Your task to perform on an android device: Clear all items from cart on bestbuy. Image 0: 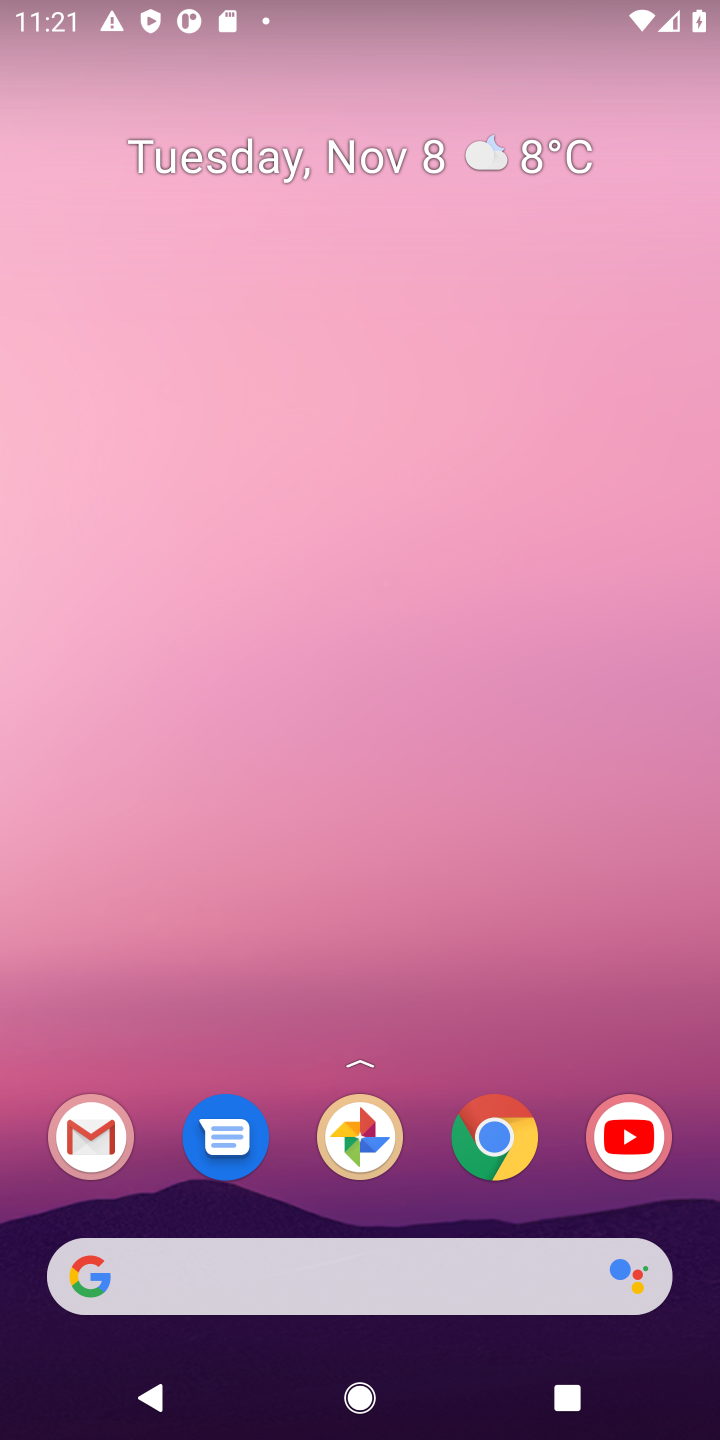
Step 0: click (521, 1133)
Your task to perform on an android device: Clear all items from cart on bestbuy. Image 1: 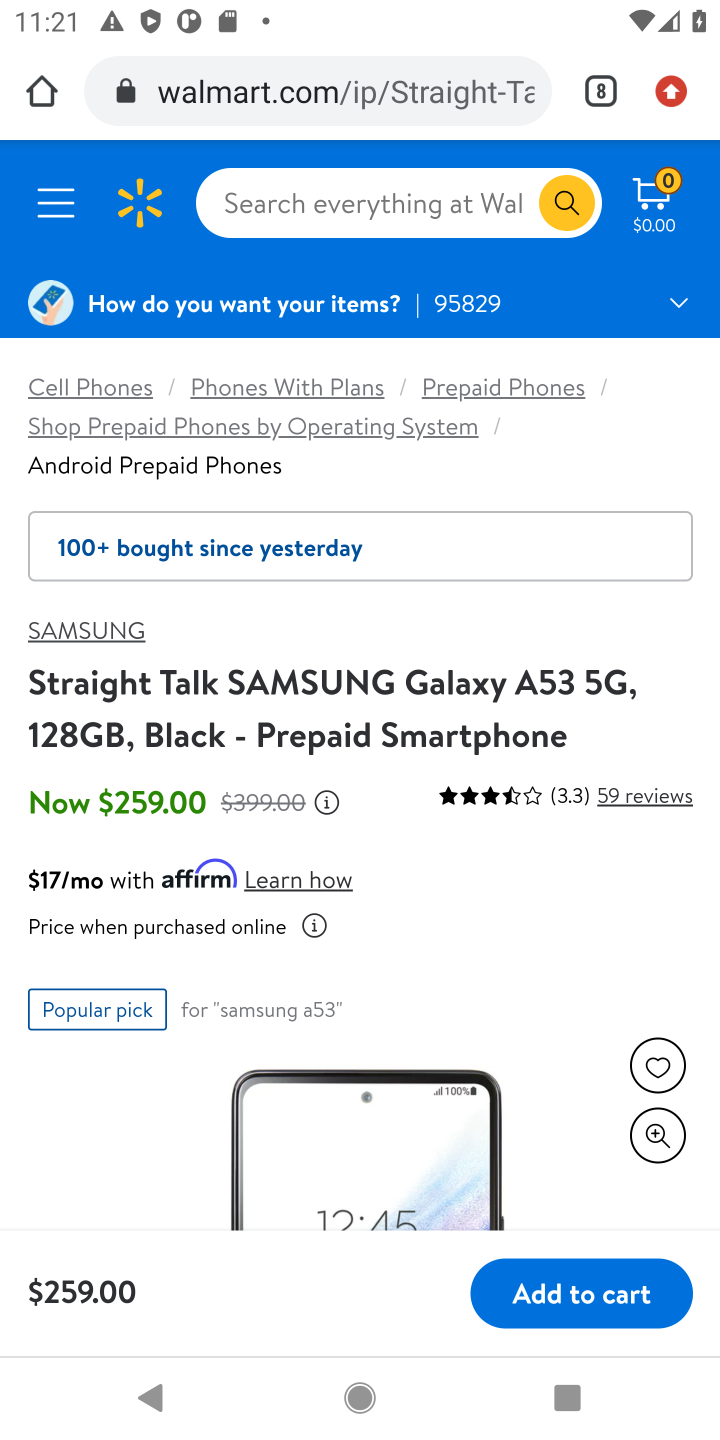
Step 1: click (616, 88)
Your task to perform on an android device: Clear all items from cart on bestbuy. Image 2: 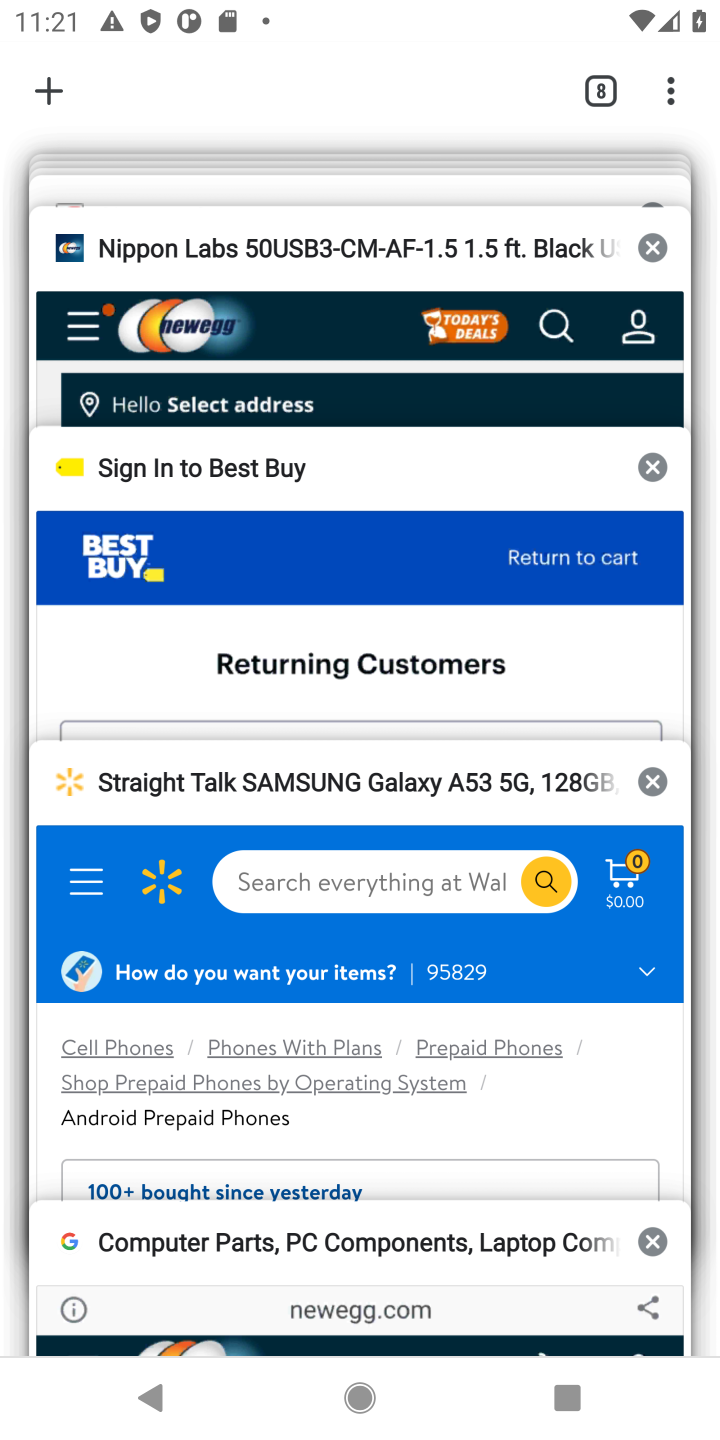
Step 2: click (391, 606)
Your task to perform on an android device: Clear all items from cart on bestbuy. Image 3: 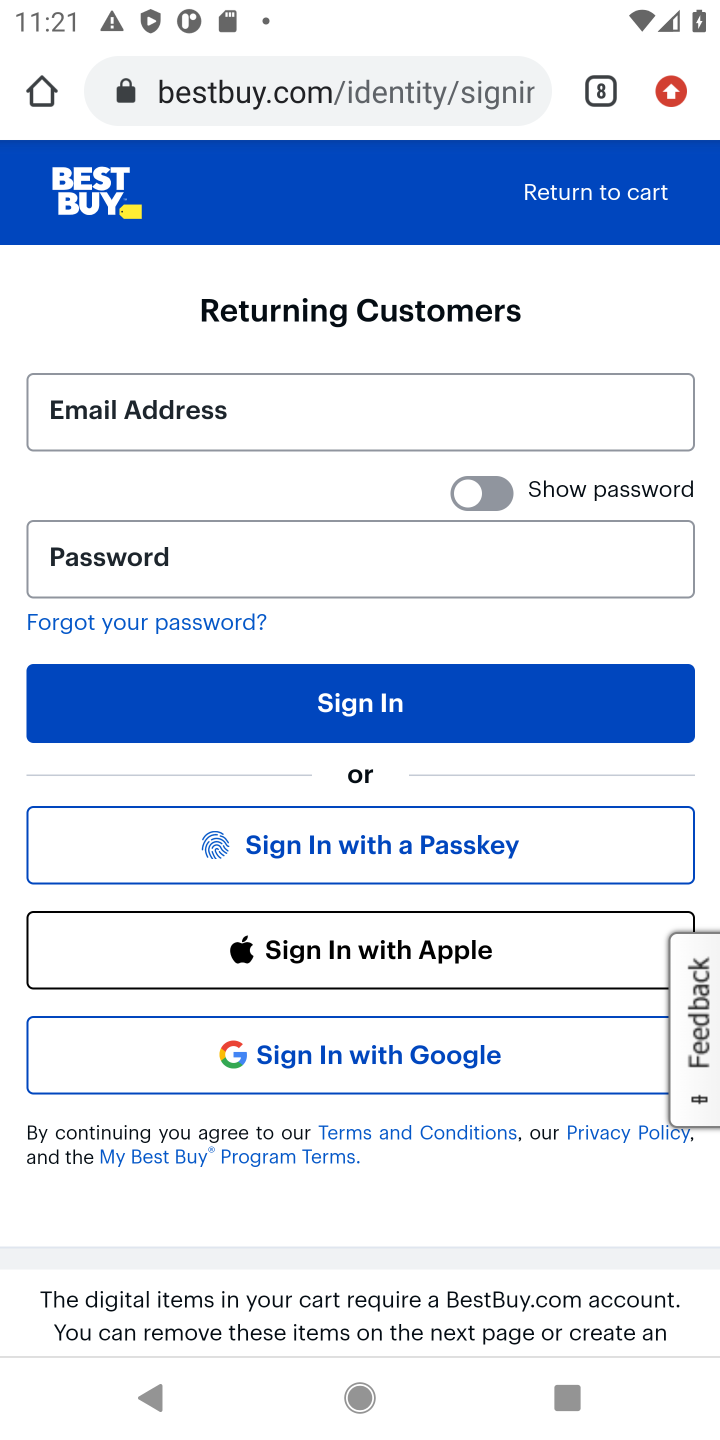
Step 3: click (586, 193)
Your task to perform on an android device: Clear all items from cart on bestbuy. Image 4: 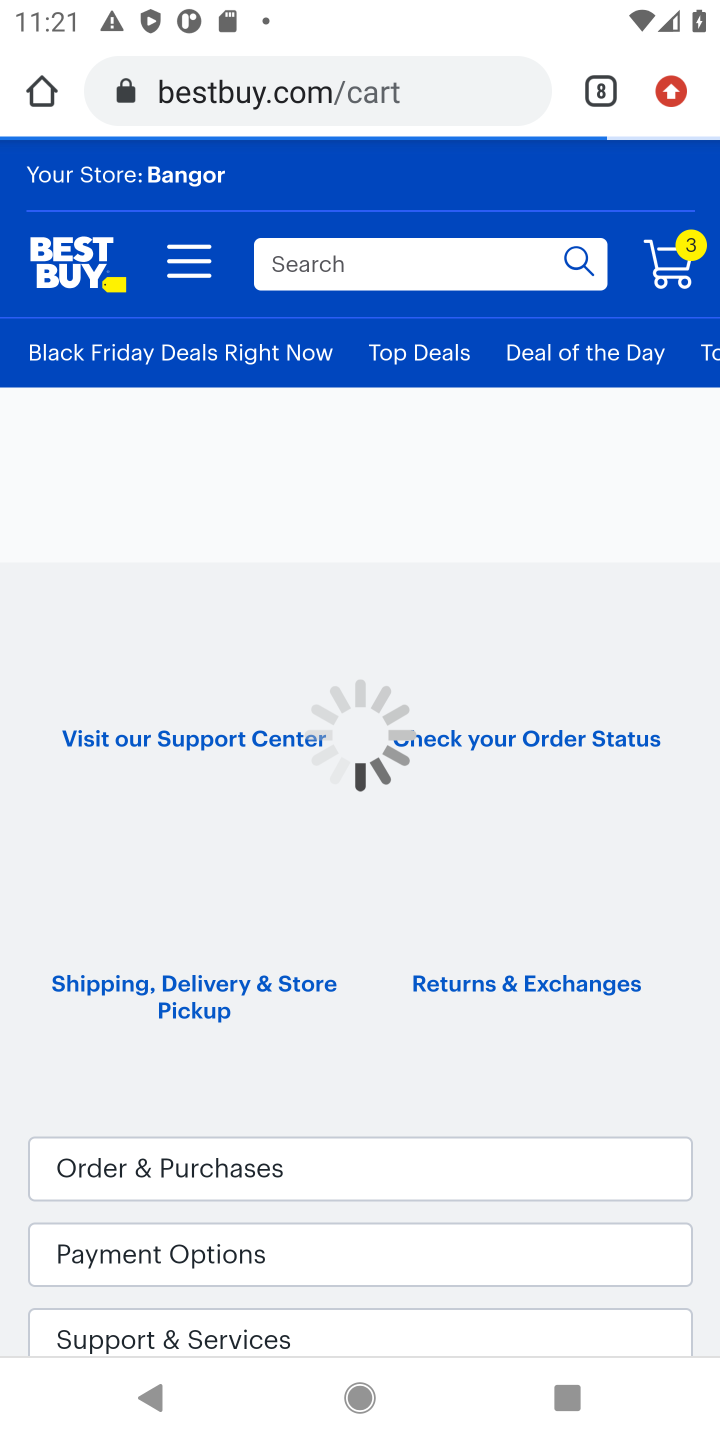
Step 4: click (677, 256)
Your task to perform on an android device: Clear all items from cart on bestbuy. Image 5: 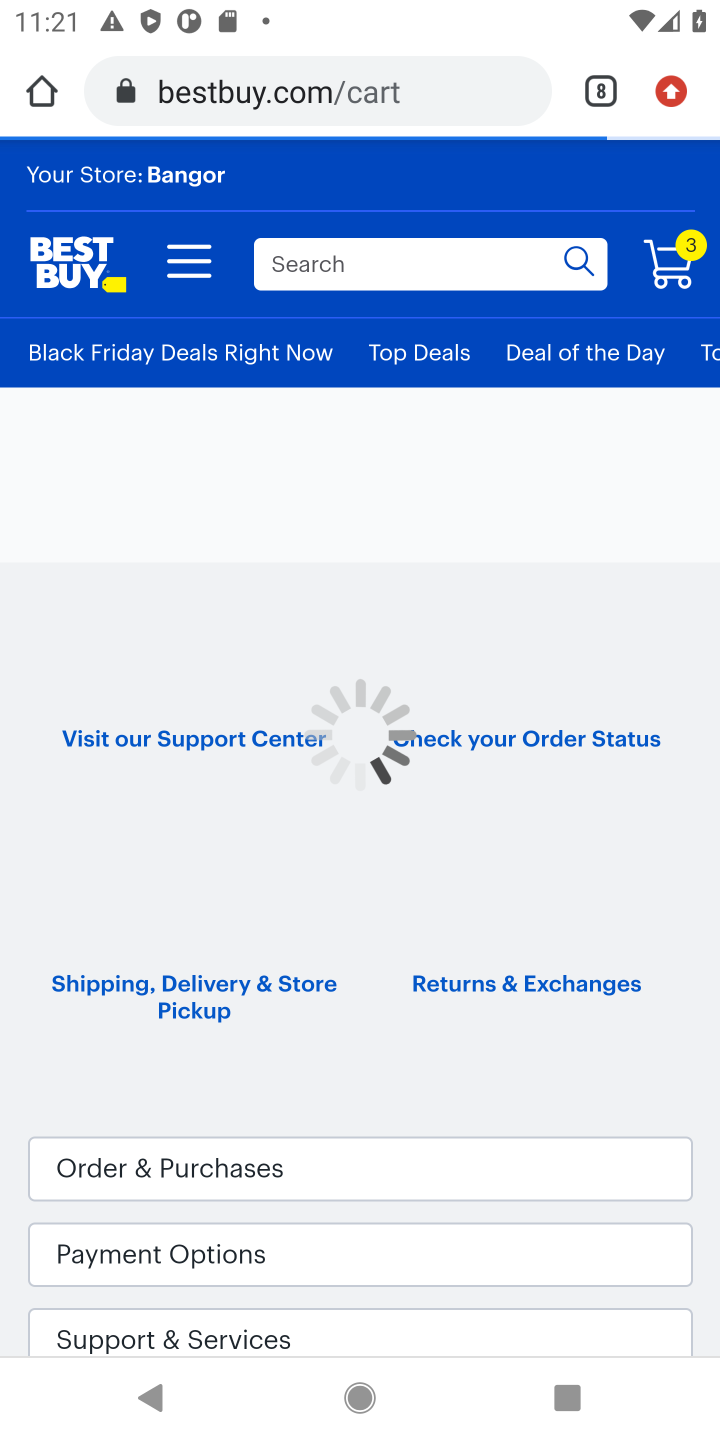
Step 5: click (677, 256)
Your task to perform on an android device: Clear all items from cart on bestbuy. Image 6: 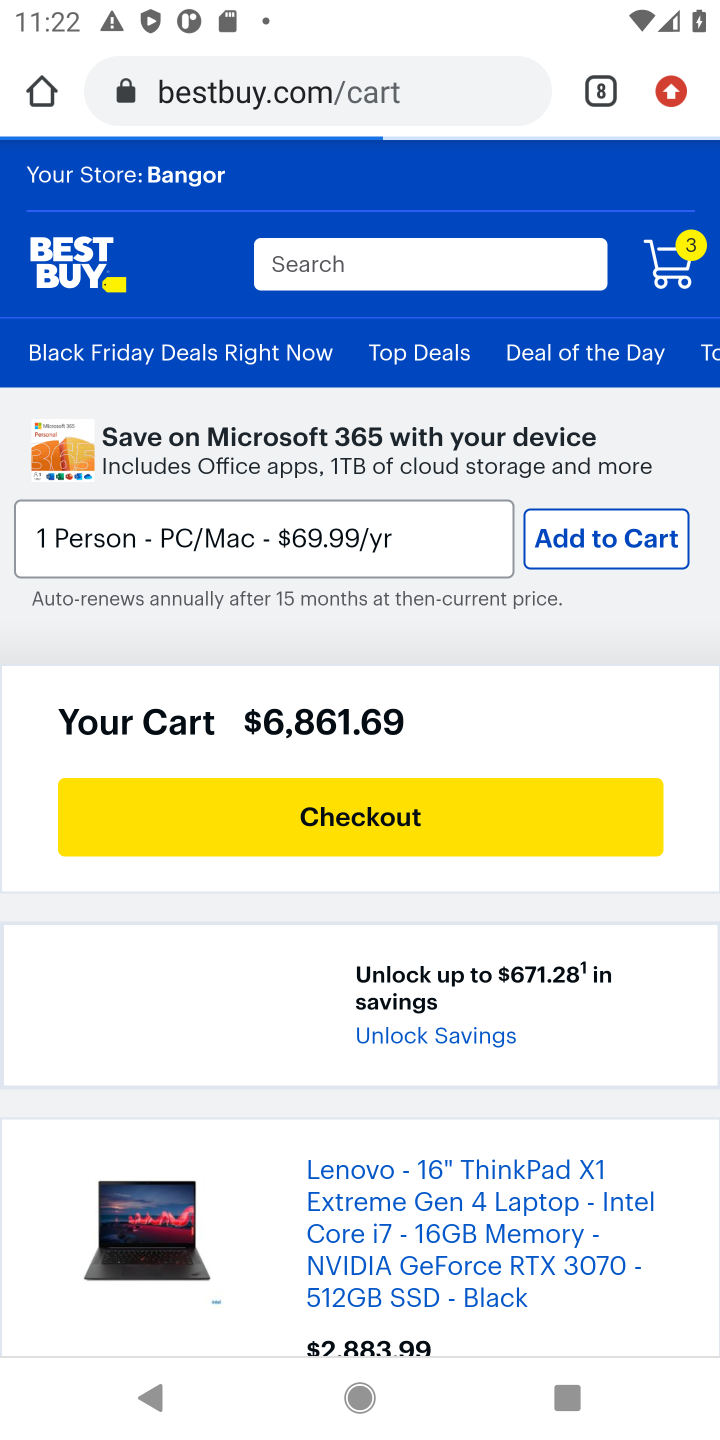
Step 6: click (677, 256)
Your task to perform on an android device: Clear all items from cart on bestbuy. Image 7: 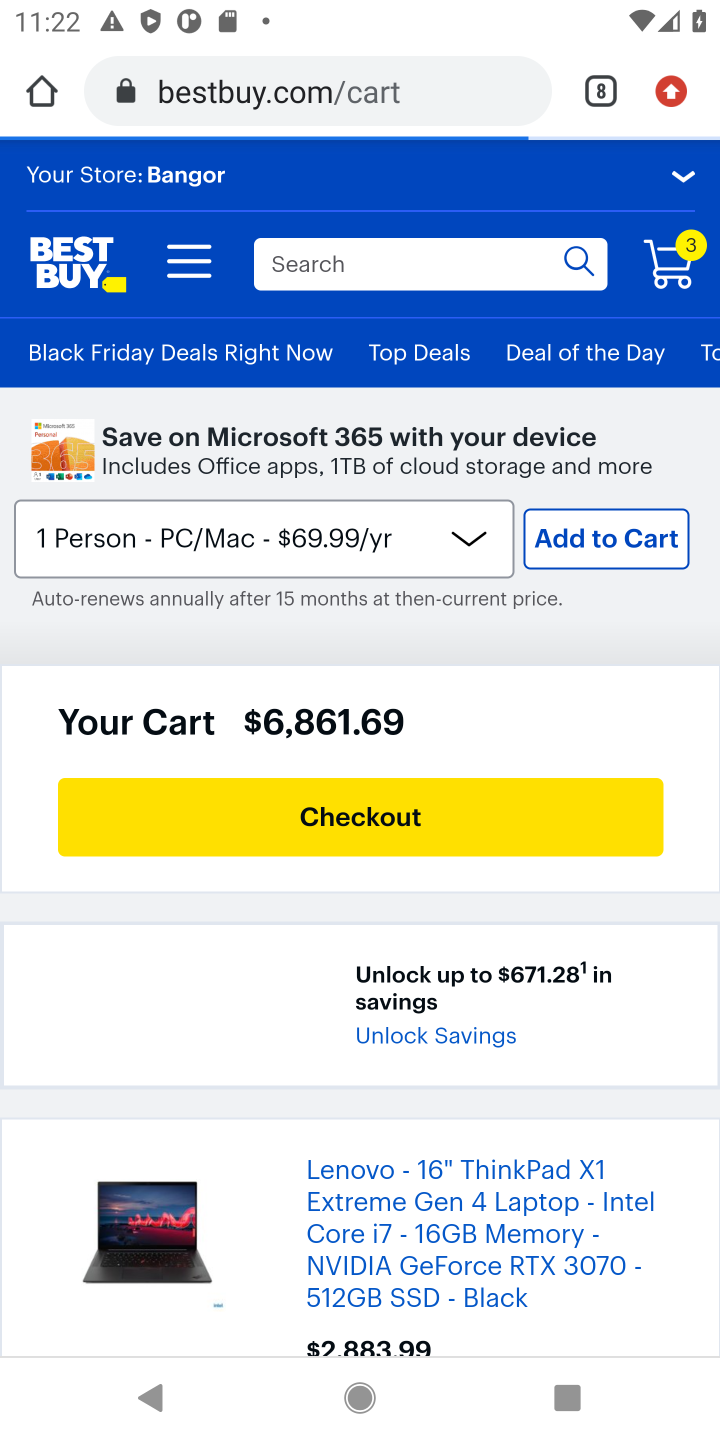
Step 7: drag from (295, 1247) to (600, 259)
Your task to perform on an android device: Clear all items from cart on bestbuy. Image 8: 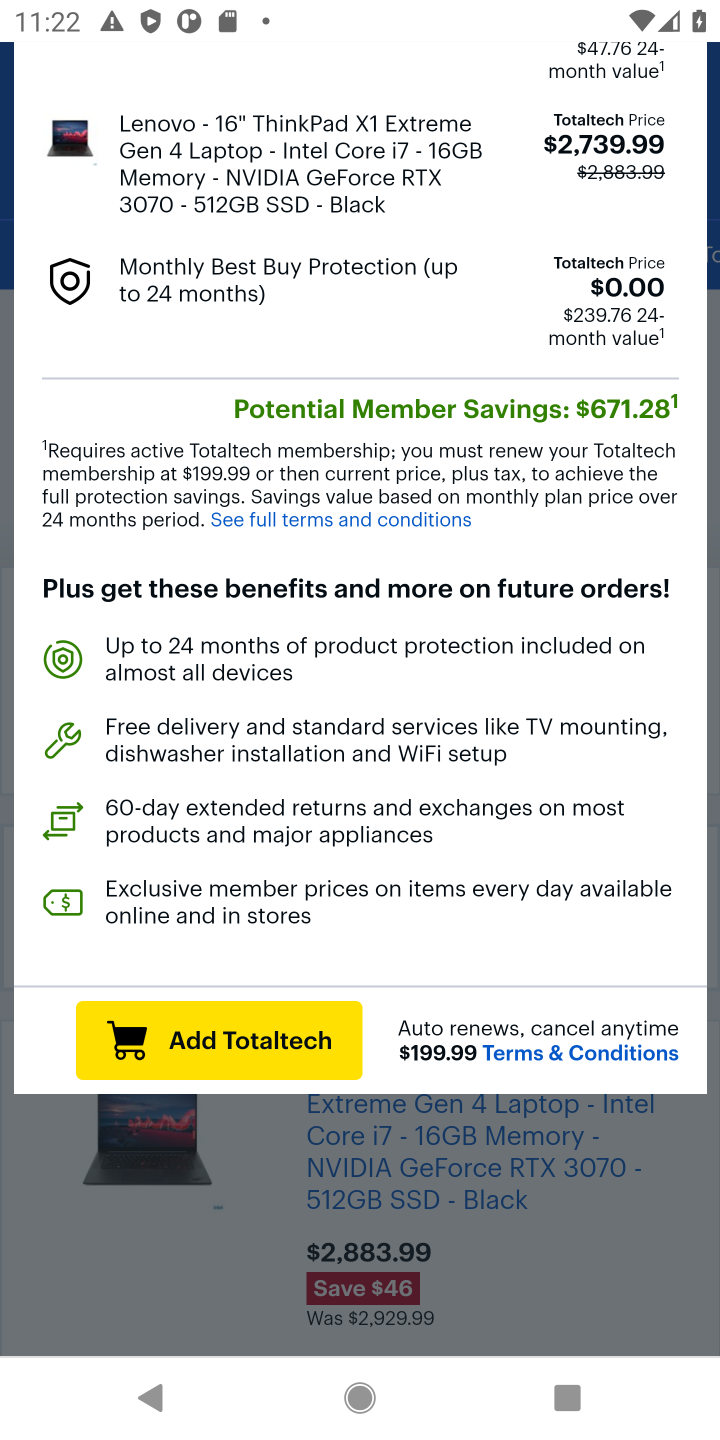
Step 8: click (571, 1290)
Your task to perform on an android device: Clear all items from cart on bestbuy. Image 9: 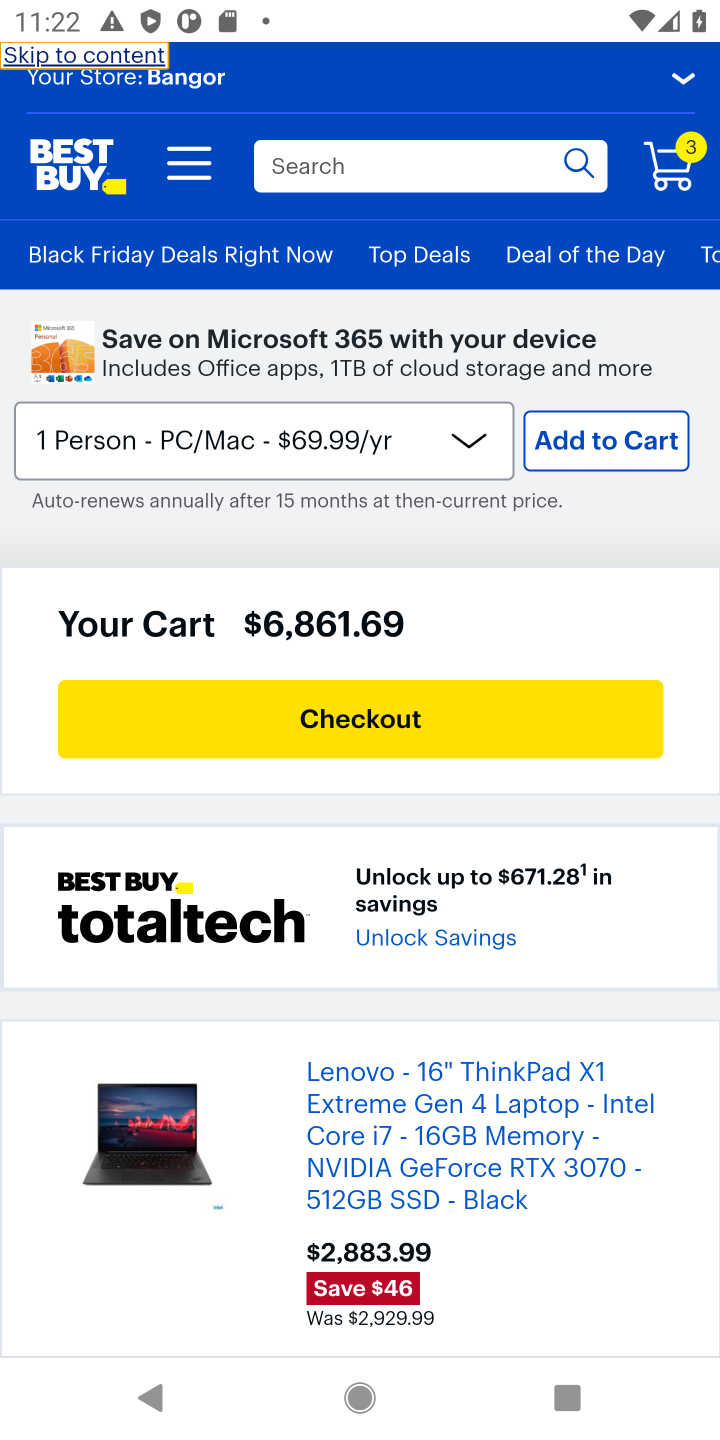
Step 9: drag from (521, 1277) to (672, 401)
Your task to perform on an android device: Clear all items from cart on bestbuy. Image 10: 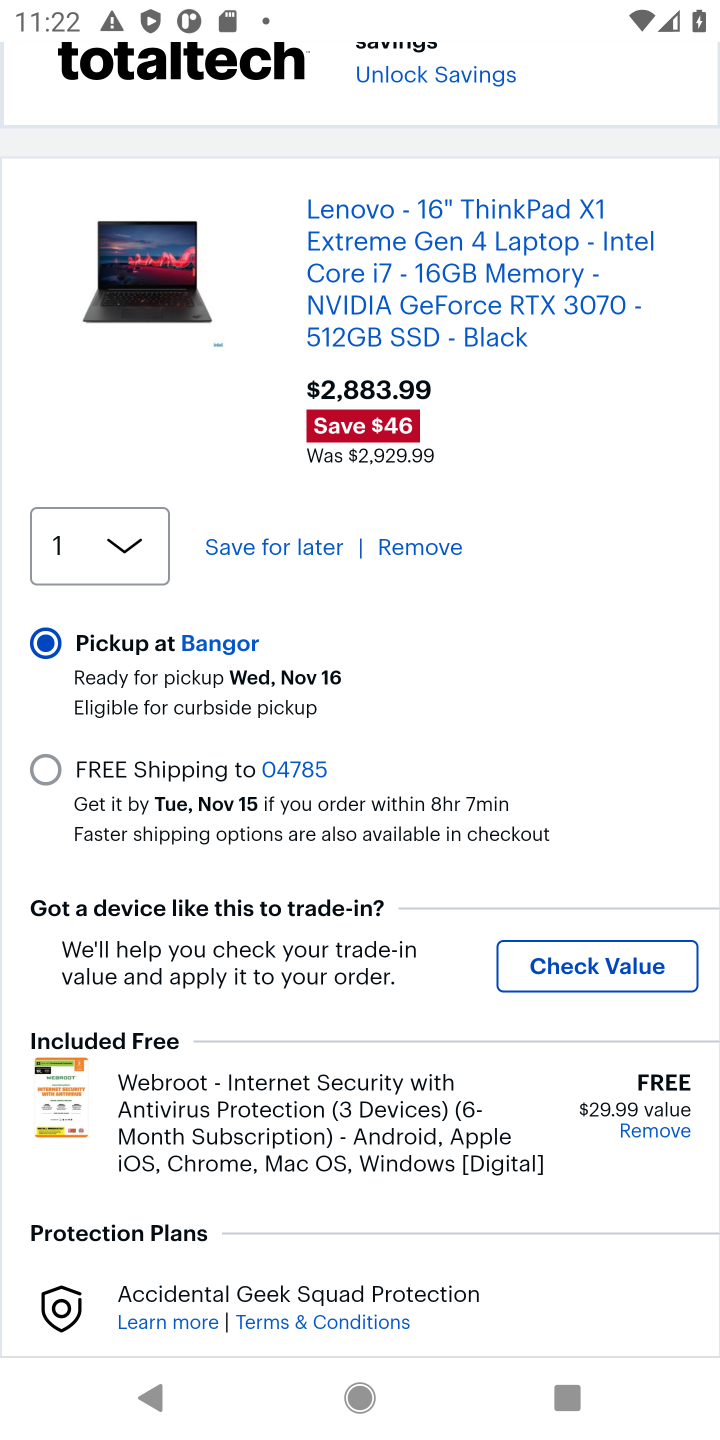
Step 10: click (417, 552)
Your task to perform on an android device: Clear all items from cart on bestbuy. Image 11: 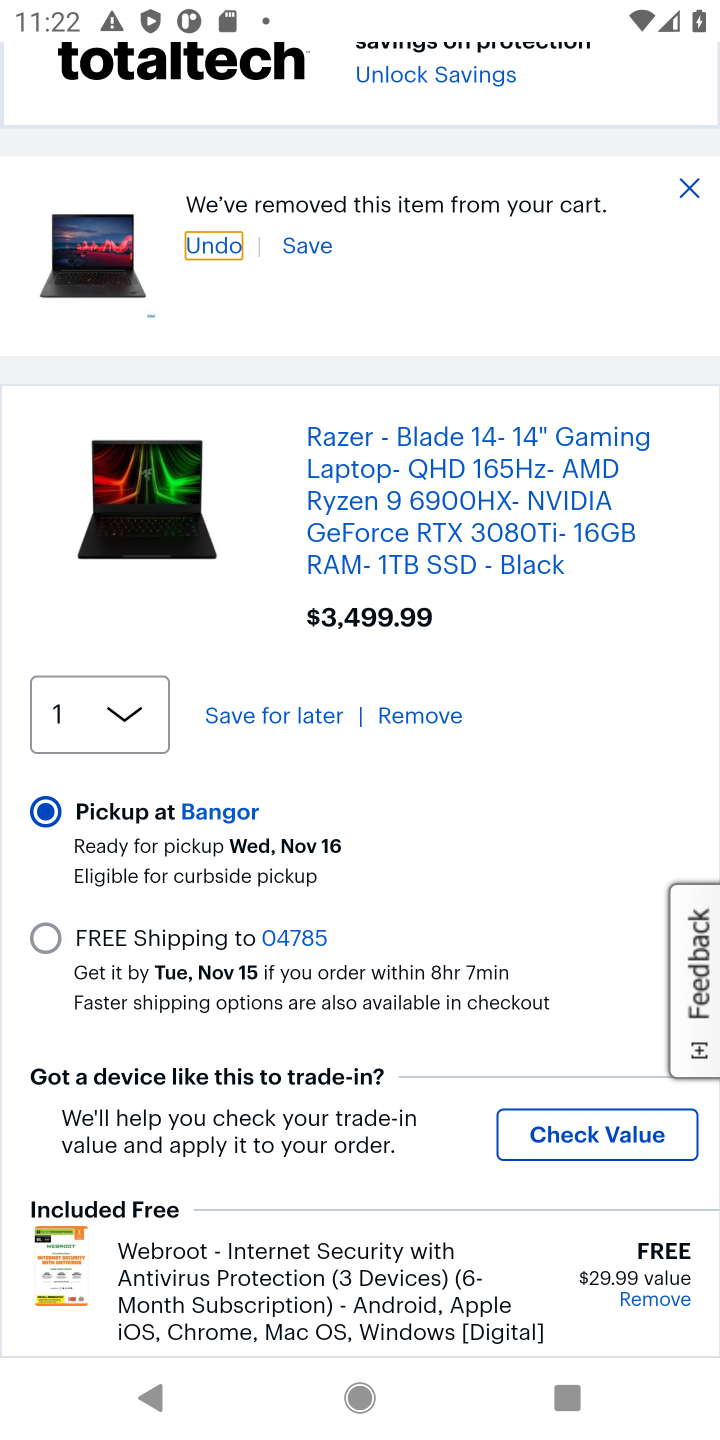
Step 11: click (402, 700)
Your task to perform on an android device: Clear all items from cart on bestbuy. Image 12: 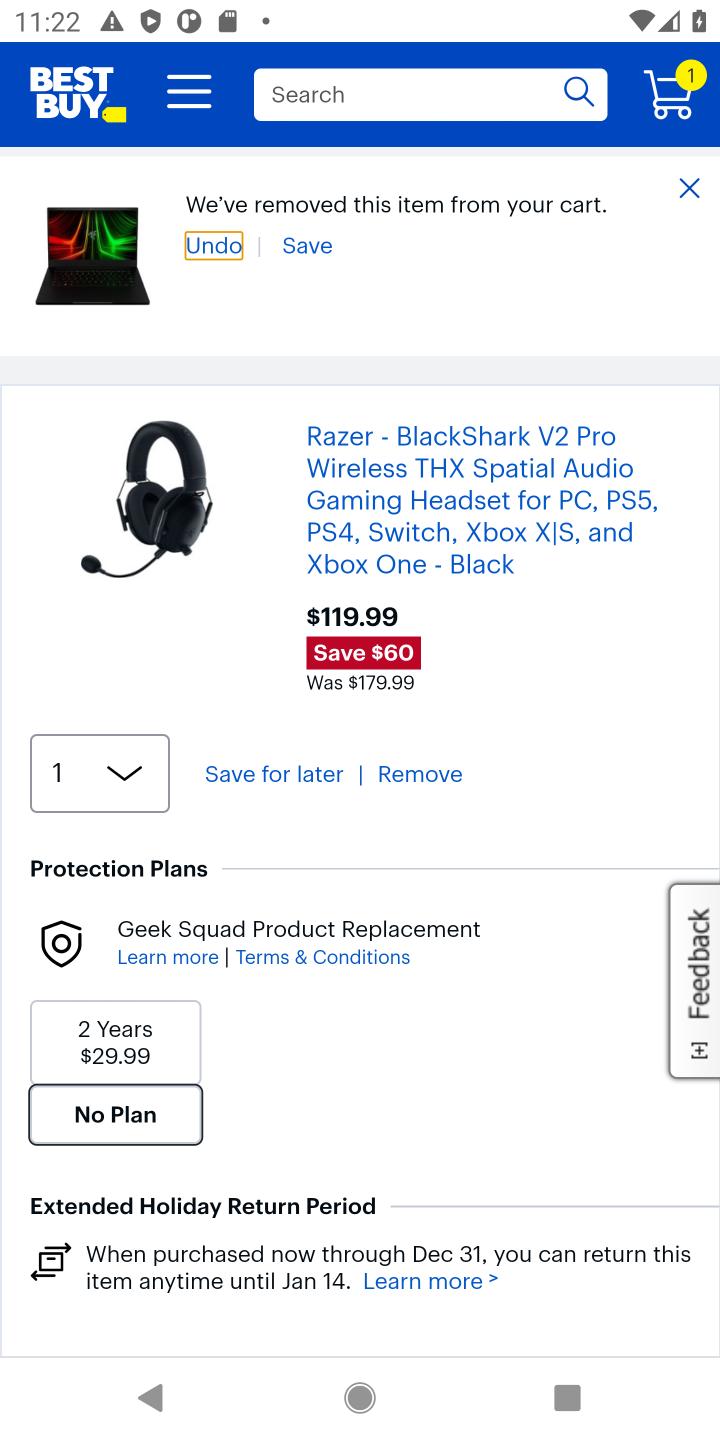
Step 12: click (404, 765)
Your task to perform on an android device: Clear all items from cart on bestbuy. Image 13: 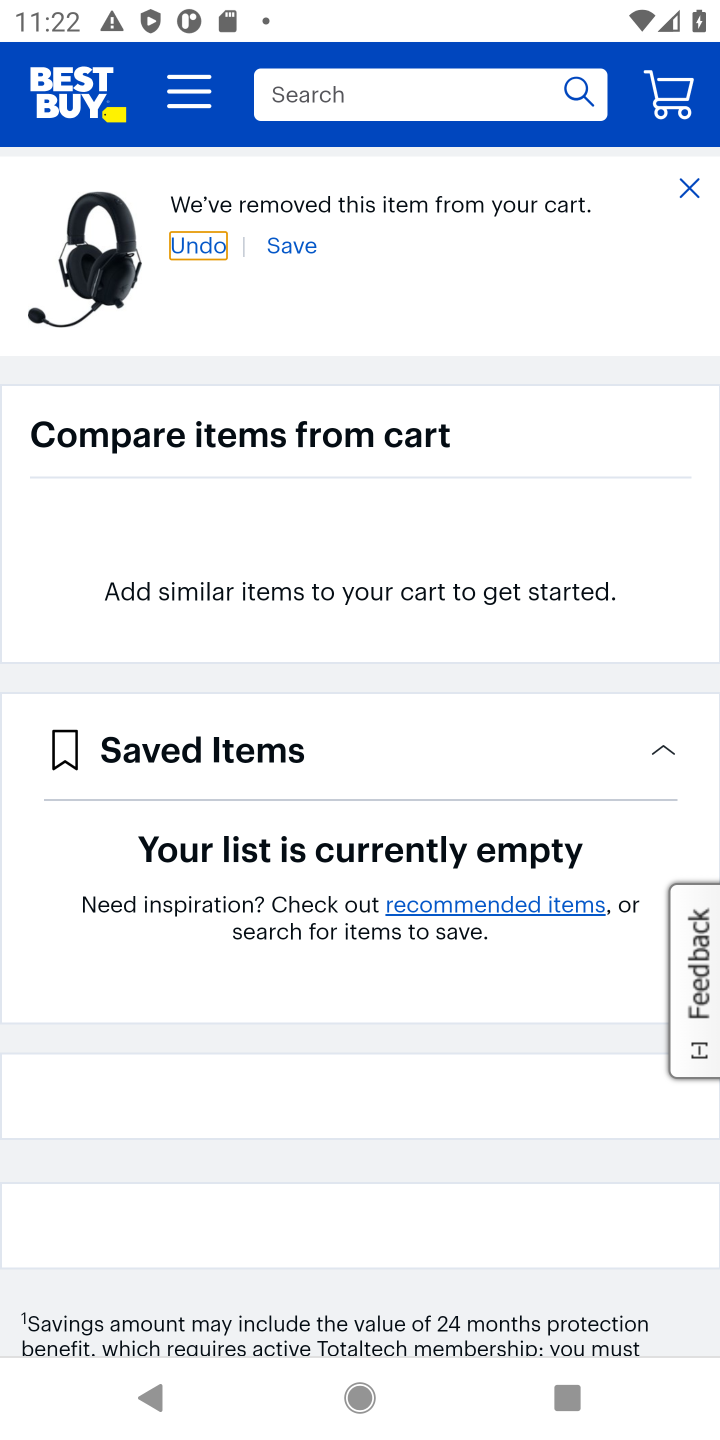
Step 13: task complete